Your task to perform on an android device: open app "Pandora - Music & Podcasts" Image 0: 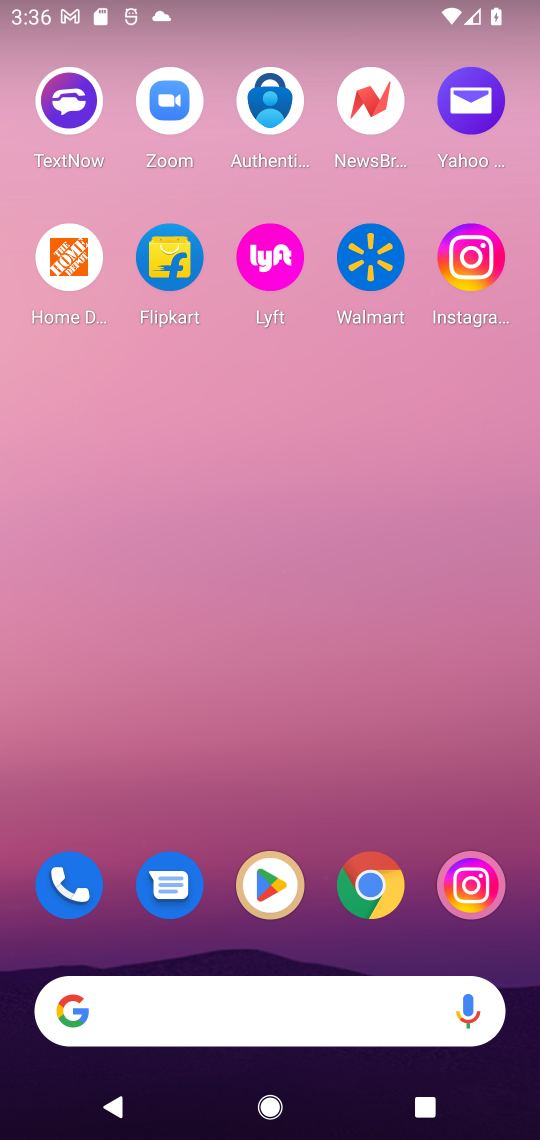
Step 0: click (269, 881)
Your task to perform on an android device: open app "Pandora - Music & Podcasts" Image 1: 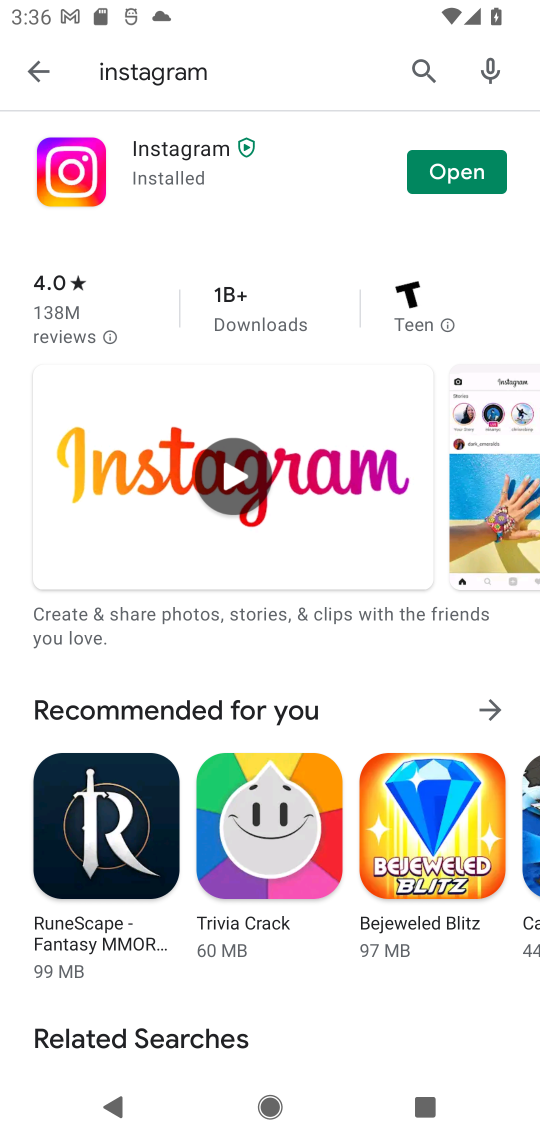
Step 1: click (423, 70)
Your task to perform on an android device: open app "Pandora - Music & Podcasts" Image 2: 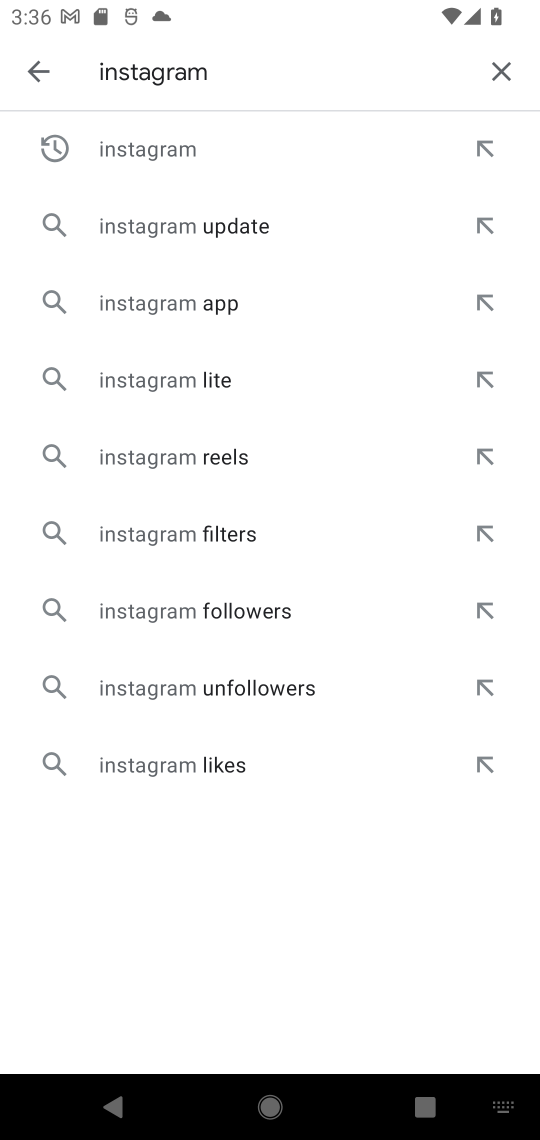
Step 2: click (494, 71)
Your task to perform on an android device: open app "Pandora - Music & Podcasts" Image 3: 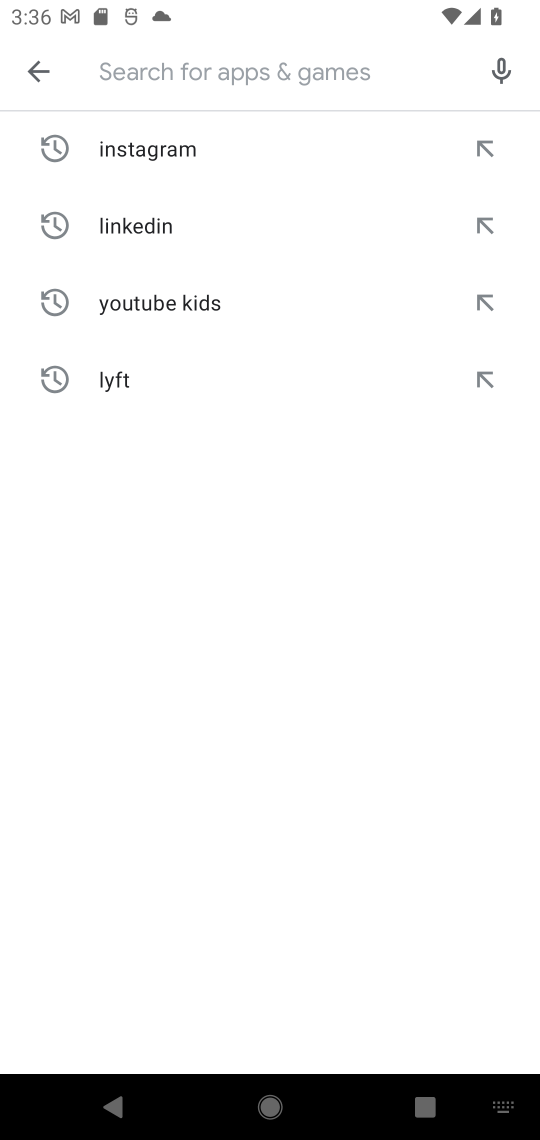
Step 3: type "Pandora - Music & Podcasts"
Your task to perform on an android device: open app "Pandora - Music & Podcasts" Image 4: 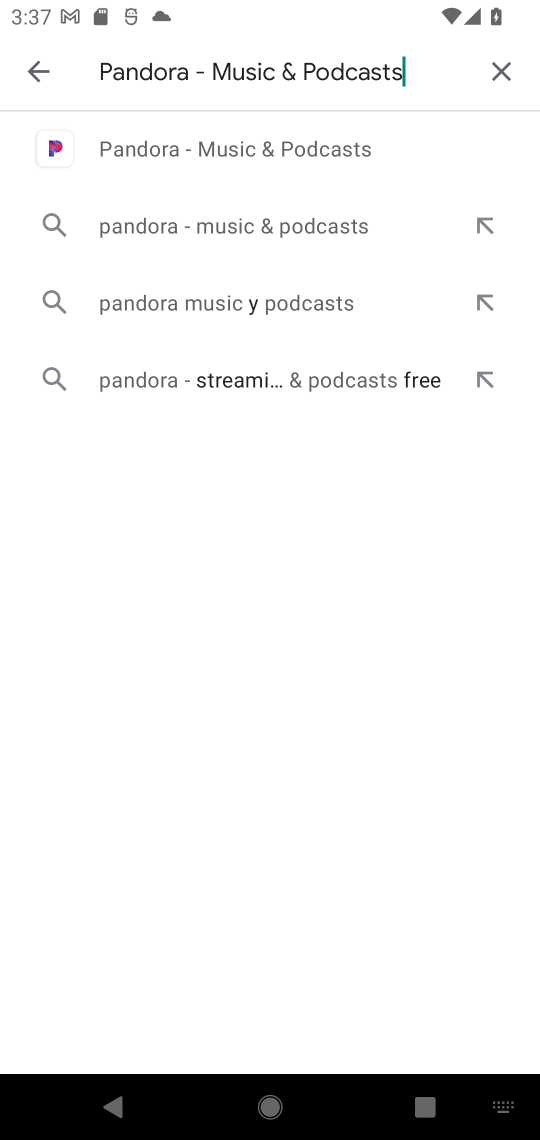
Step 4: click (189, 132)
Your task to perform on an android device: open app "Pandora - Music & Podcasts" Image 5: 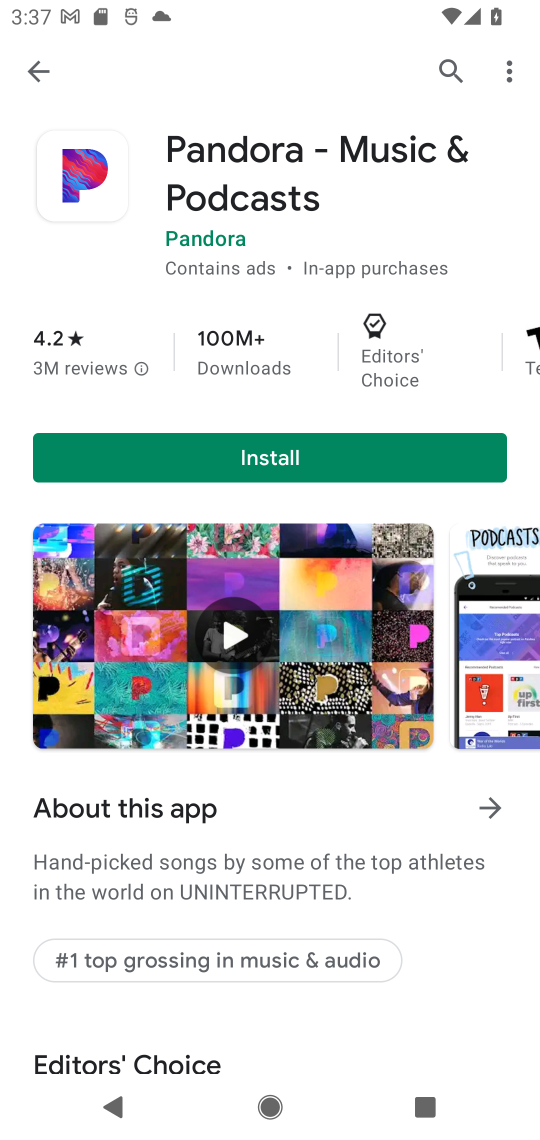
Step 5: task complete